Your task to perform on an android device: toggle pop-ups in chrome Image 0: 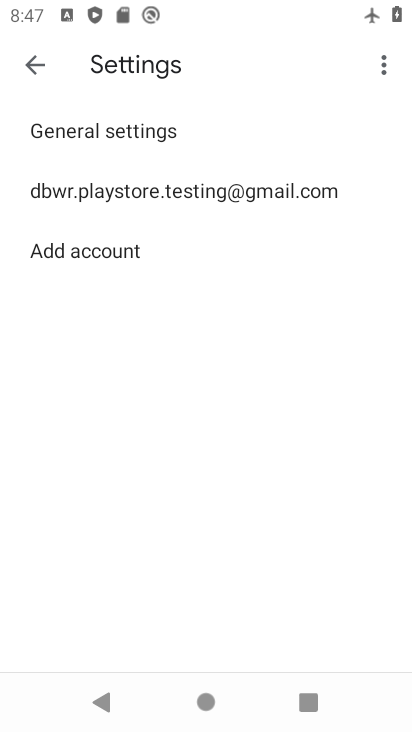
Step 0: press home button
Your task to perform on an android device: toggle pop-ups in chrome Image 1: 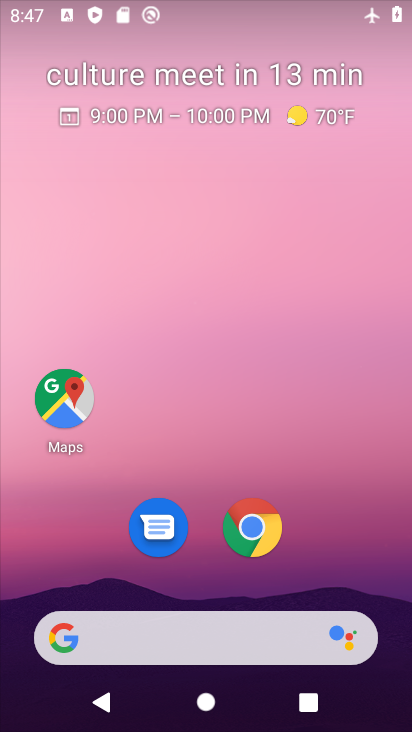
Step 1: drag from (210, 579) to (219, 334)
Your task to perform on an android device: toggle pop-ups in chrome Image 2: 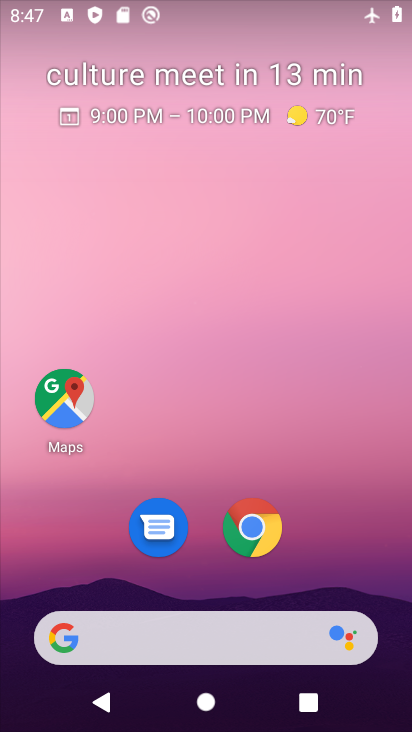
Step 2: drag from (187, 675) to (268, 209)
Your task to perform on an android device: toggle pop-ups in chrome Image 3: 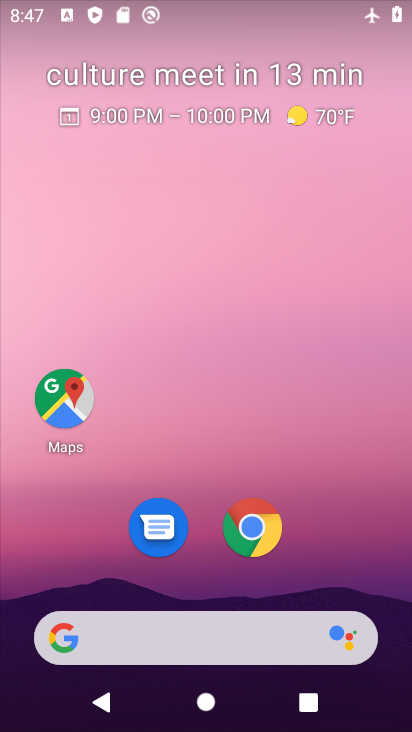
Step 3: click (264, 536)
Your task to perform on an android device: toggle pop-ups in chrome Image 4: 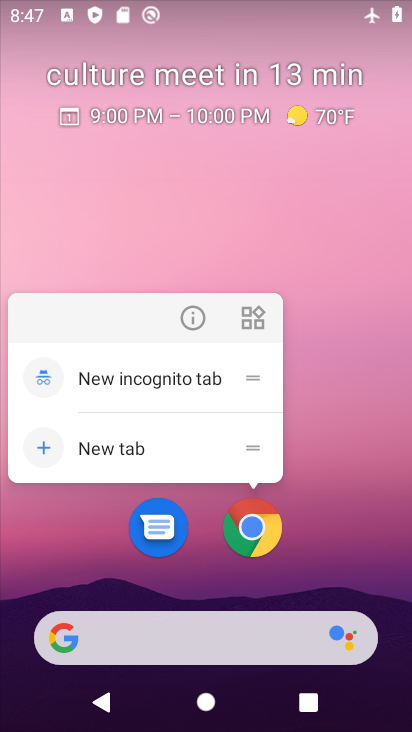
Step 4: click (266, 538)
Your task to perform on an android device: toggle pop-ups in chrome Image 5: 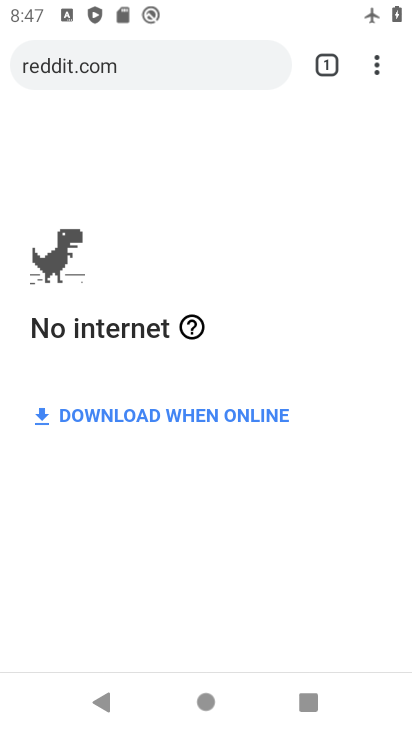
Step 5: click (378, 68)
Your task to perform on an android device: toggle pop-ups in chrome Image 6: 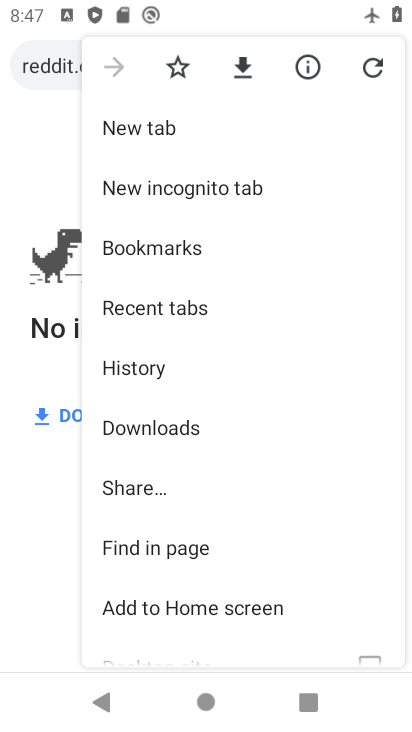
Step 6: drag from (228, 436) to (255, 141)
Your task to perform on an android device: toggle pop-ups in chrome Image 7: 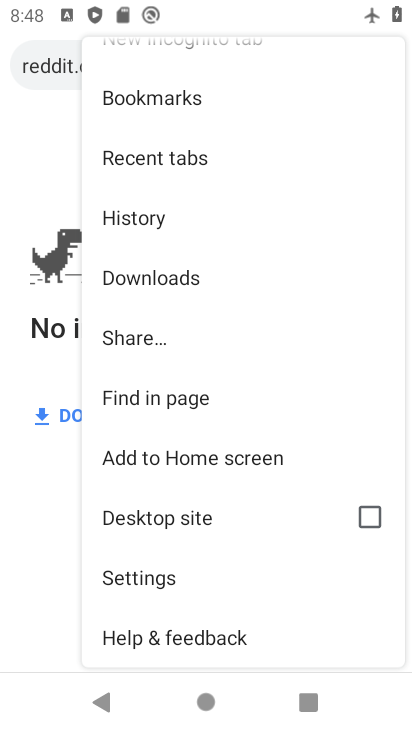
Step 7: click (174, 590)
Your task to perform on an android device: toggle pop-ups in chrome Image 8: 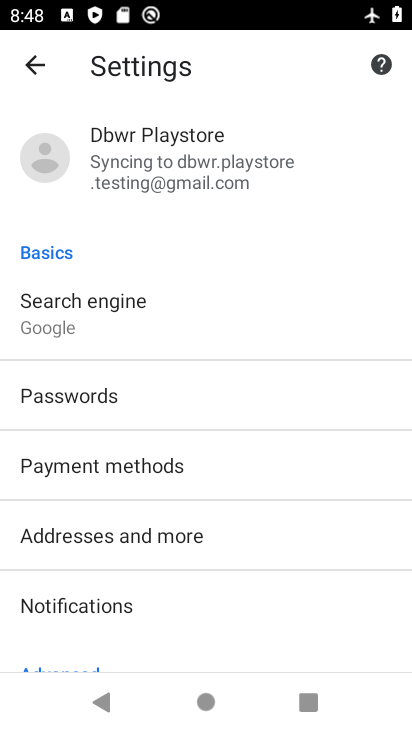
Step 8: drag from (147, 581) to (201, 248)
Your task to perform on an android device: toggle pop-ups in chrome Image 9: 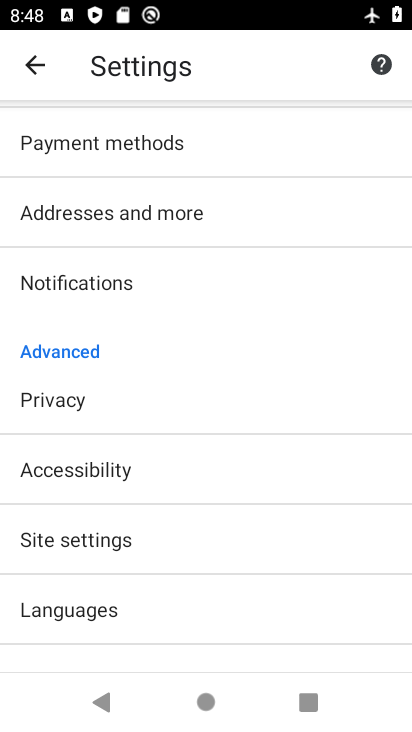
Step 9: click (155, 551)
Your task to perform on an android device: toggle pop-ups in chrome Image 10: 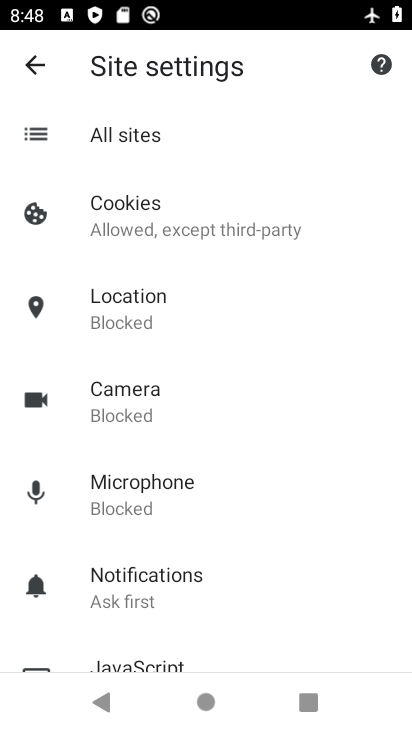
Step 10: drag from (160, 513) to (202, 252)
Your task to perform on an android device: toggle pop-ups in chrome Image 11: 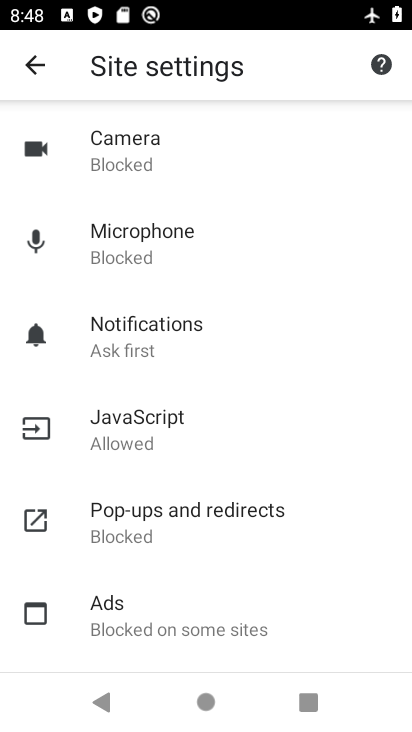
Step 11: click (177, 530)
Your task to perform on an android device: toggle pop-ups in chrome Image 12: 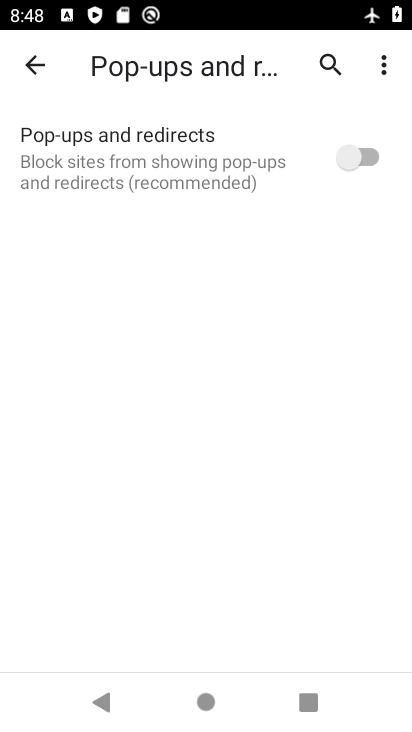
Step 12: click (348, 171)
Your task to perform on an android device: toggle pop-ups in chrome Image 13: 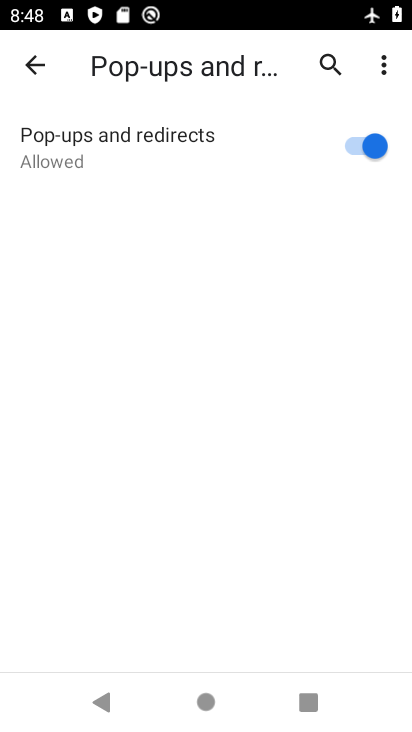
Step 13: task complete